Your task to perform on an android device: Open Android settings Image 0: 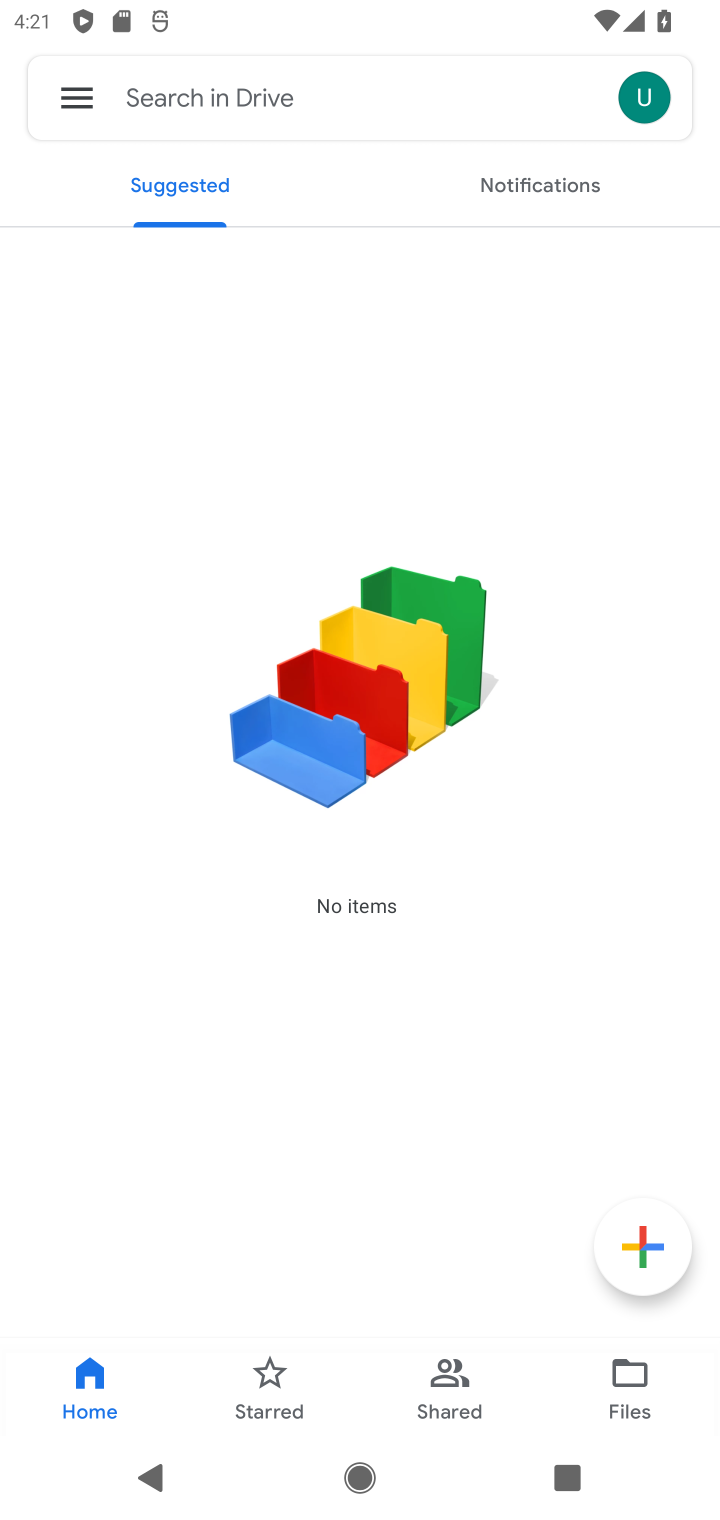
Step 0: press home button
Your task to perform on an android device: Open Android settings Image 1: 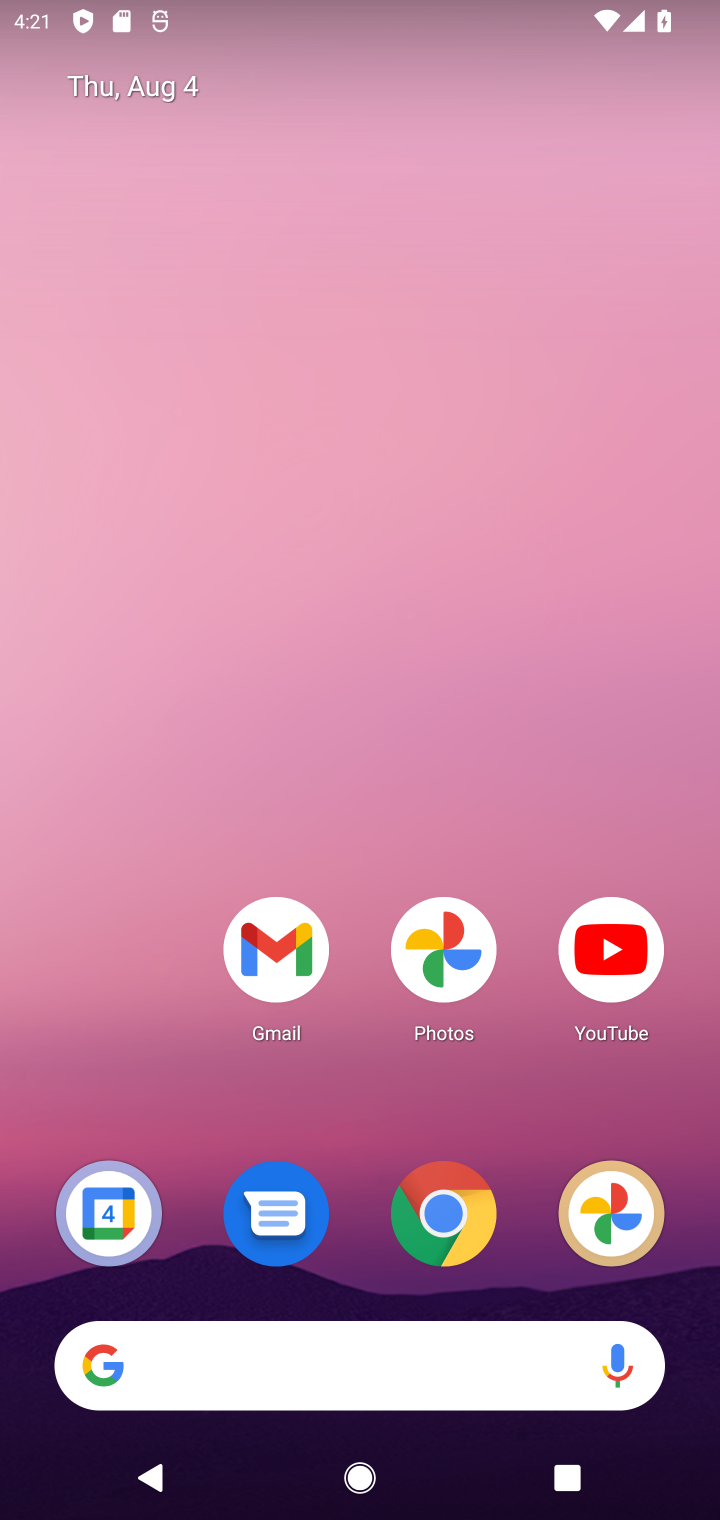
Step 1: drag from (152, 1049) to (241, 254)
Your task to perform on an android device: Open Android settings Image 2: 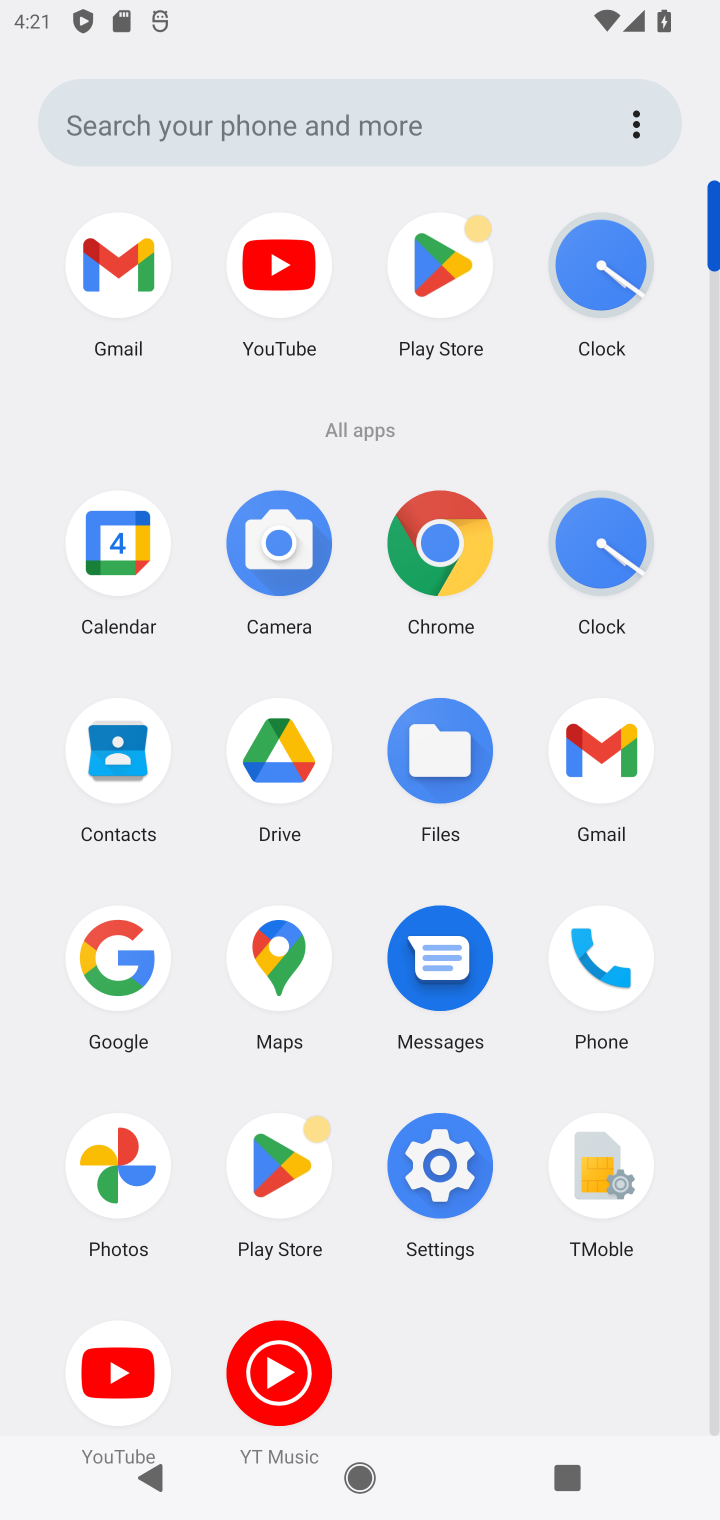
Step 2: click (450, 1164)
Your task to perform on an android device: Open Android settings Image 3: 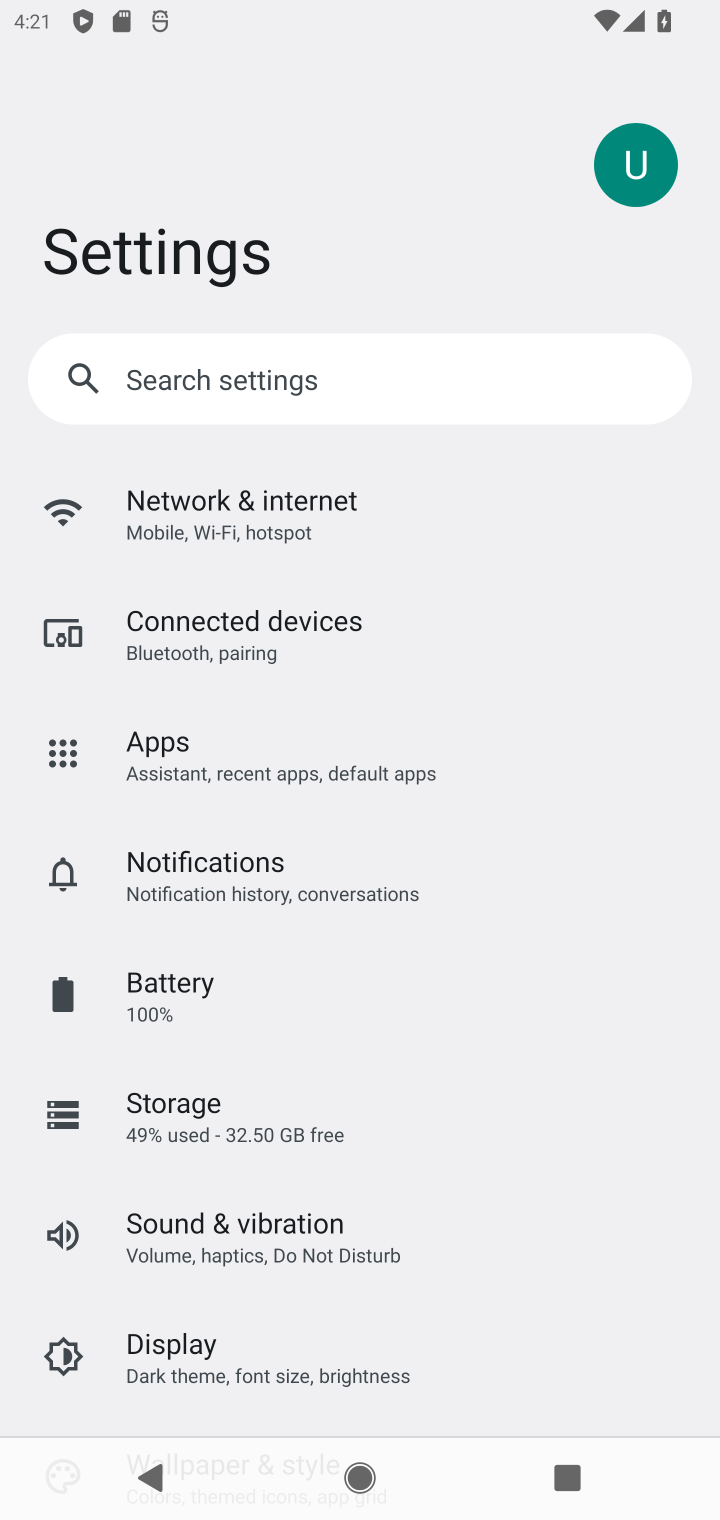
Step 3: drag from (503, 1258) to (562, 812)
Your task to perform on an android device: Open Android settings Image 4: 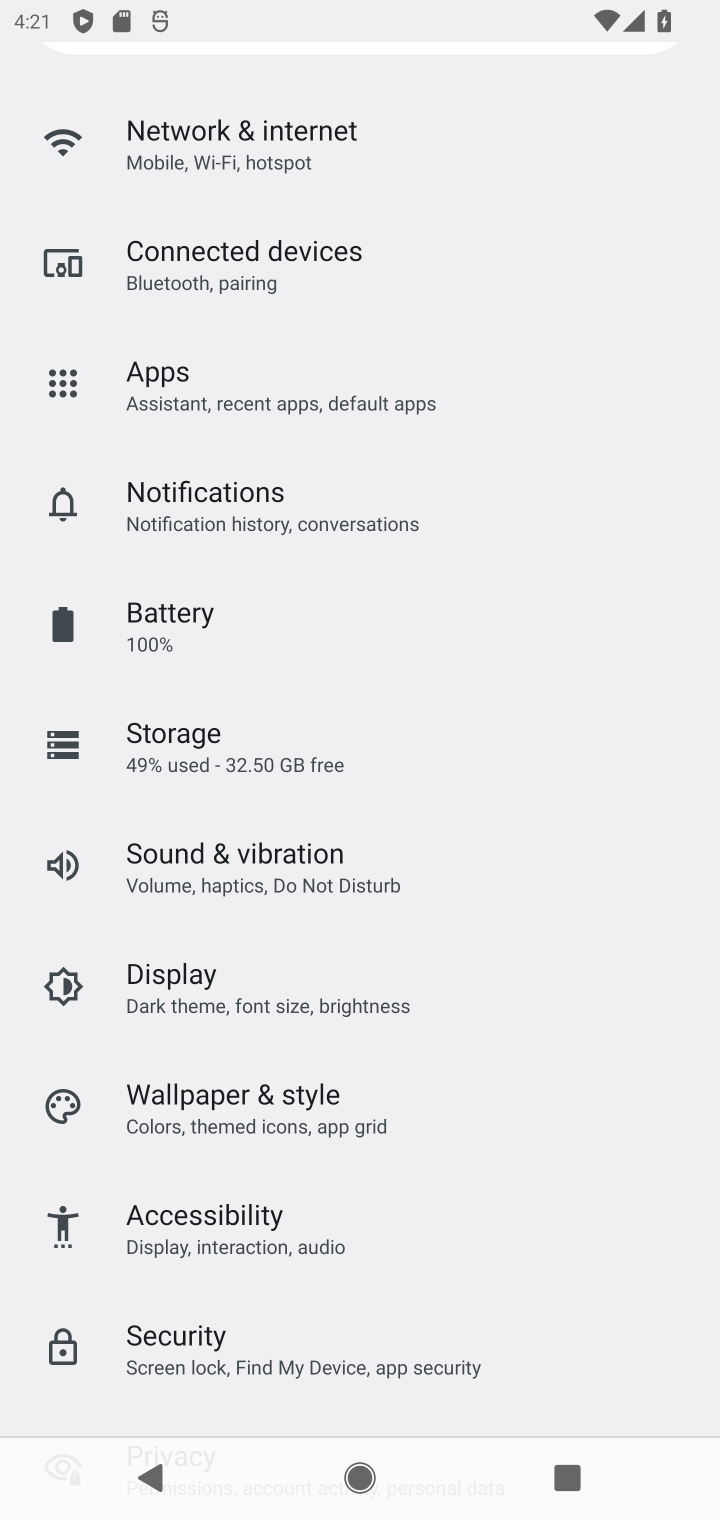
Step 4: drag from (567, 1212) to (592, 1000)
Your task to perform on an android device: Open Android settings Image 5: 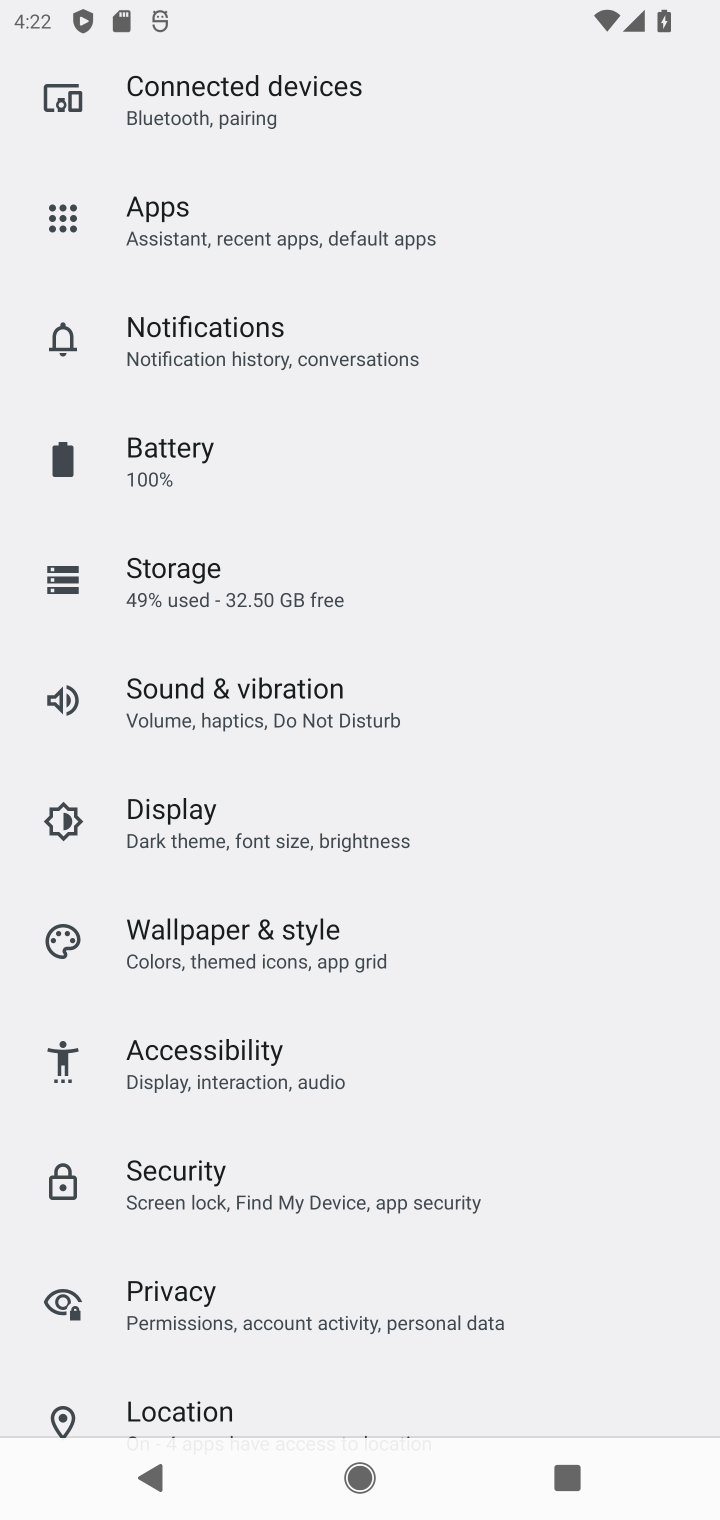
Step 5: drag from (573, 1267) to (565, 960)
Your task to perform on an android device: Open Android settings Image 6: 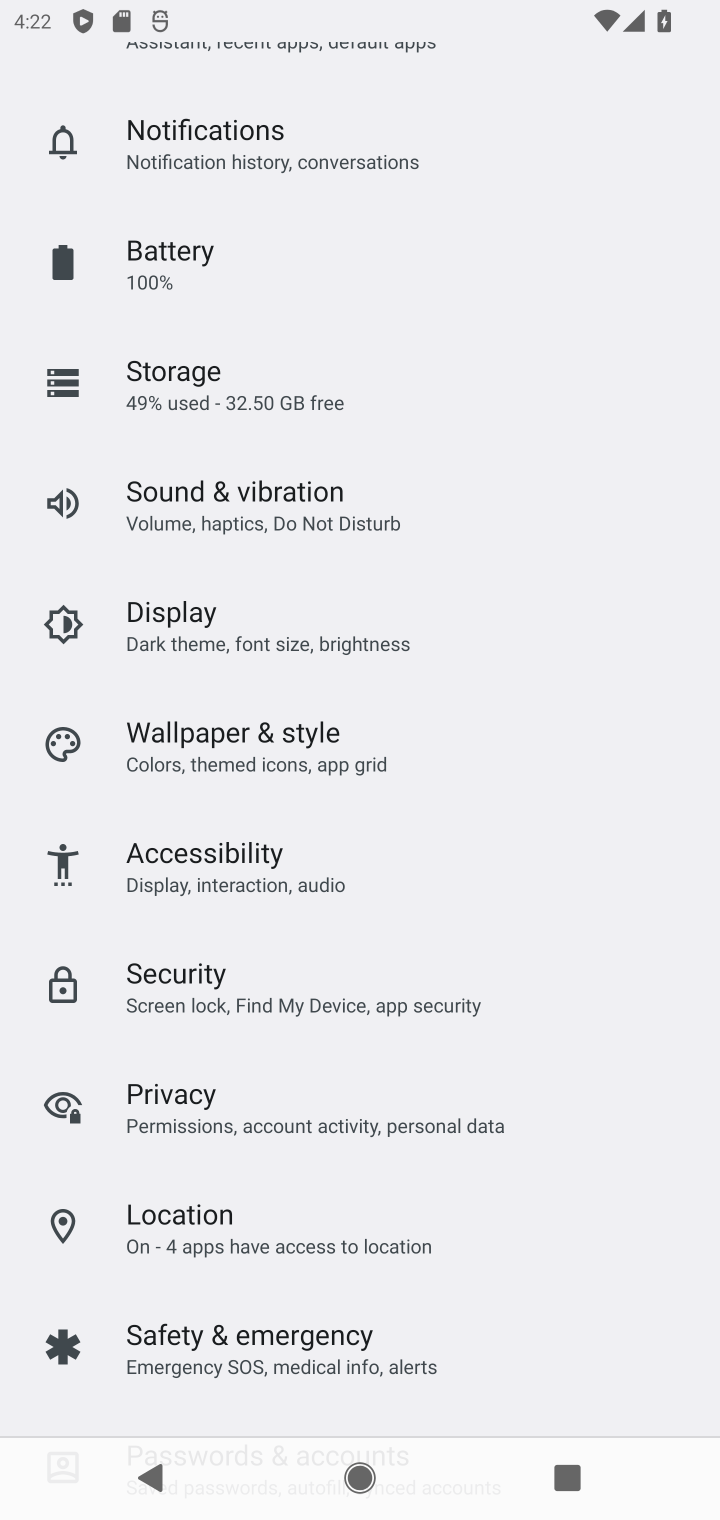
Step 6: drag from (559, 1130) to (573, 877)
Your task to perform on an android device: Open Android settings Image 7: 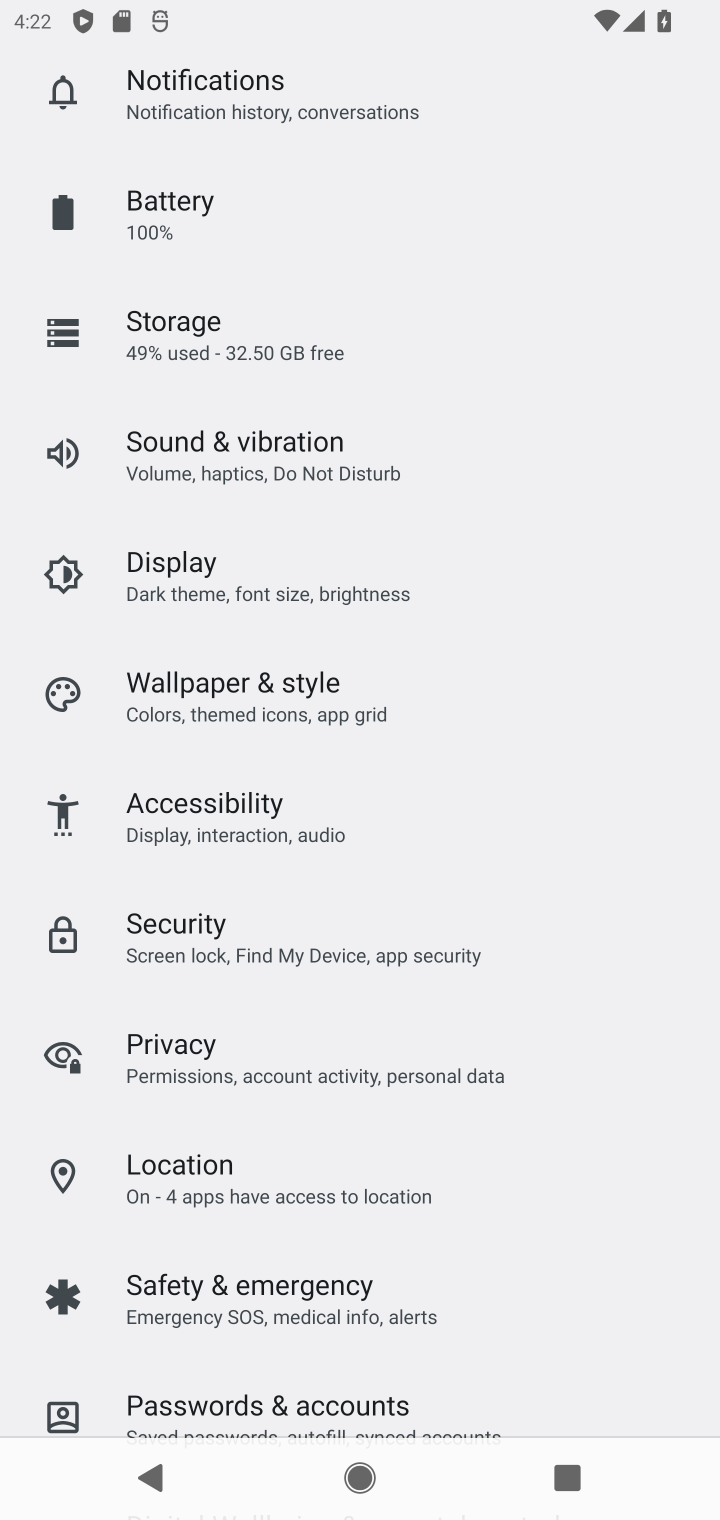
Step 7: drag from (611, 1317) to (599, 919)
Your task to perform on an android device: Open Android settings Image 8: 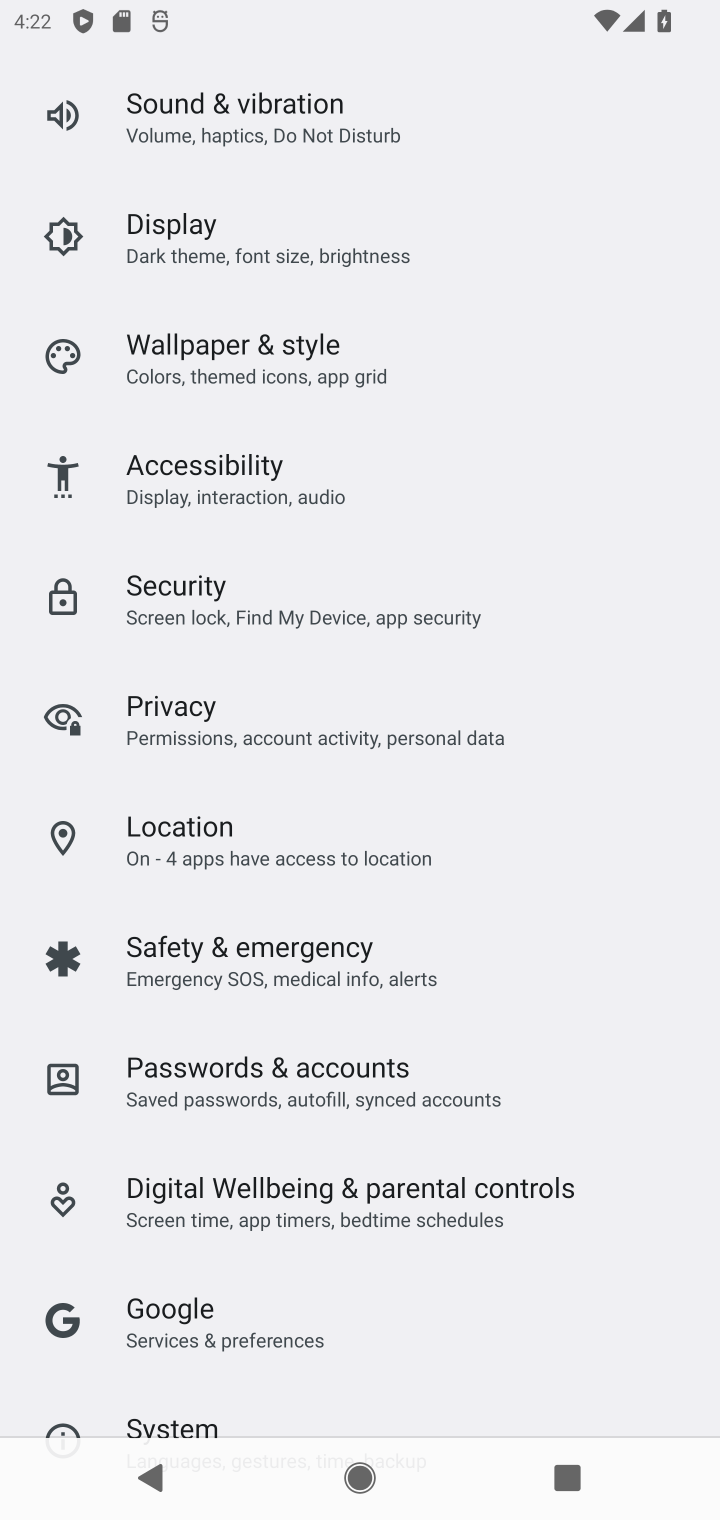
Step 8: drag from (584, 1307) to (600, 834)
Your task to perform on an android device: Open Android settings Image 9: 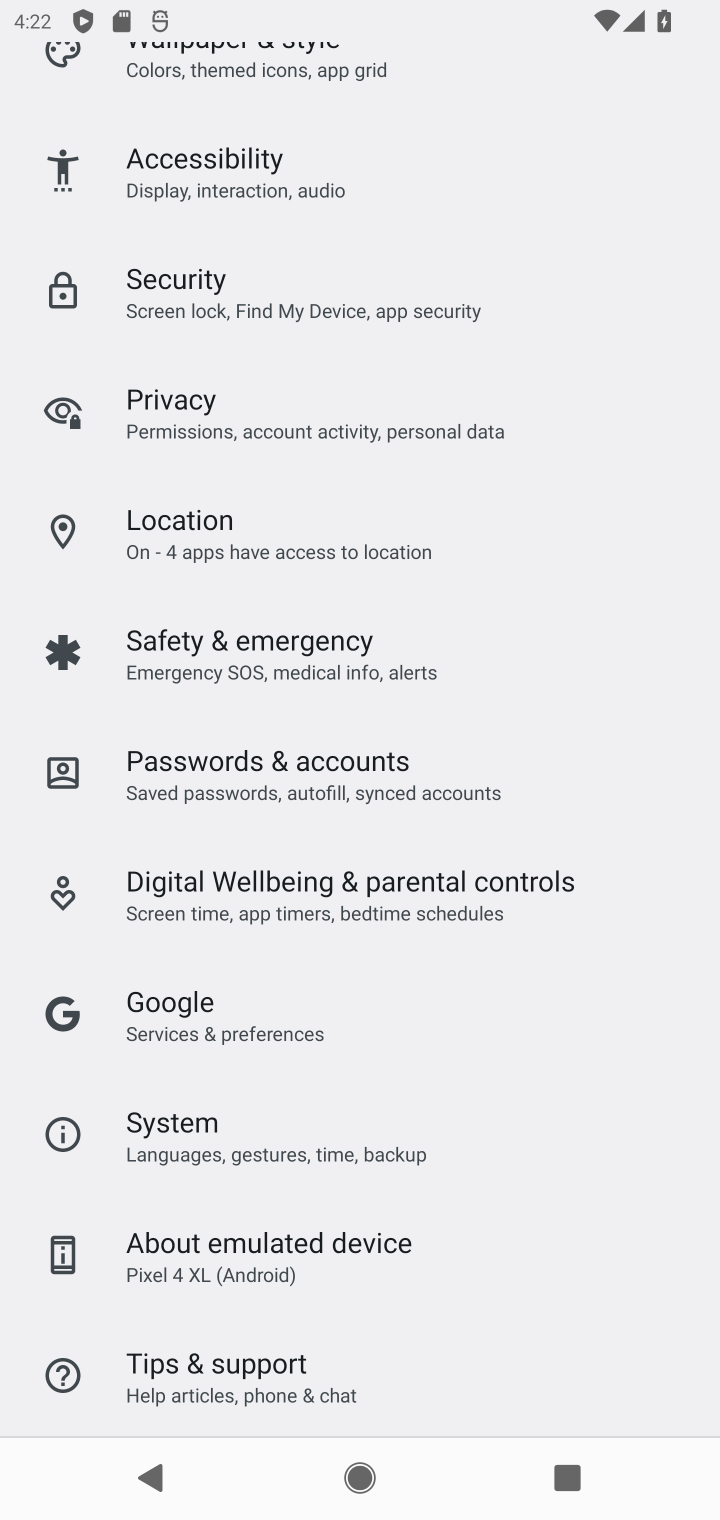
Step 9: click (437, 1147)
Your task to perform on an android device: Open Android settings Image 10: 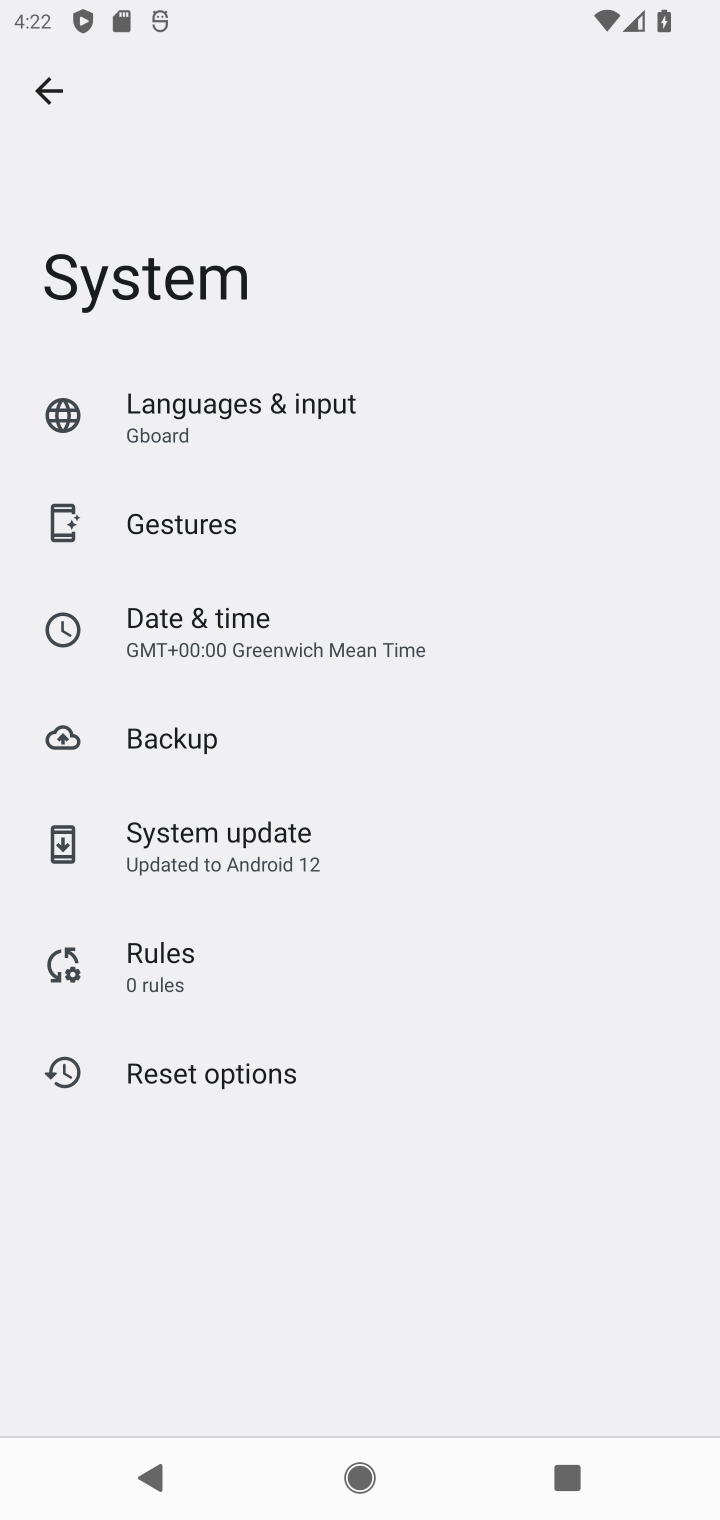
Step 10: task complete